Your task to perform on an android device: create a new album in the google photos Image 0: 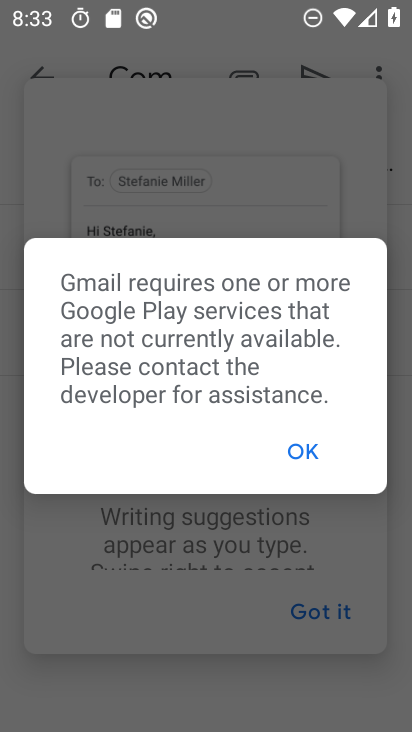
Step 0: press home button
Your task to perform on an android device: create a new album in the google photos Image 1: 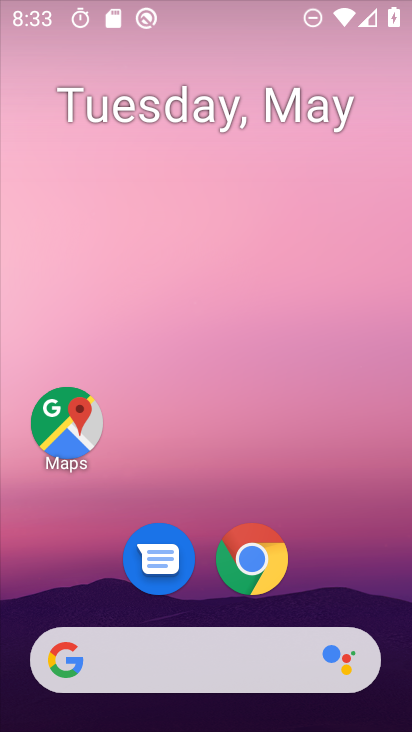
Step 1: drag from (377, 649) to (238, 103)
Your task to perform on an android device: create a new album in the google photos Image 2: 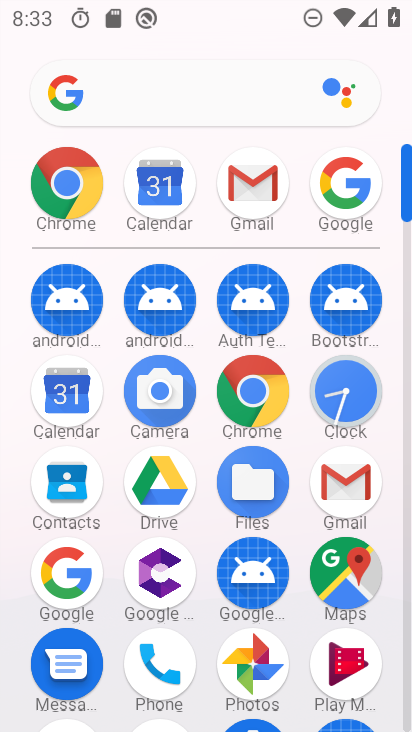
Step 2: click (253, 641)
Your task to perform on an android device: create a new album in the google photos Image 3: 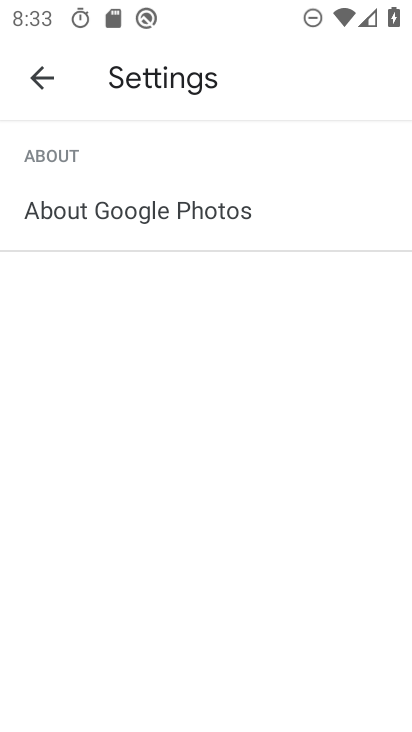
Step 3: press back button
Your task to perform on an android device: create a new album in the google photos Image 4: 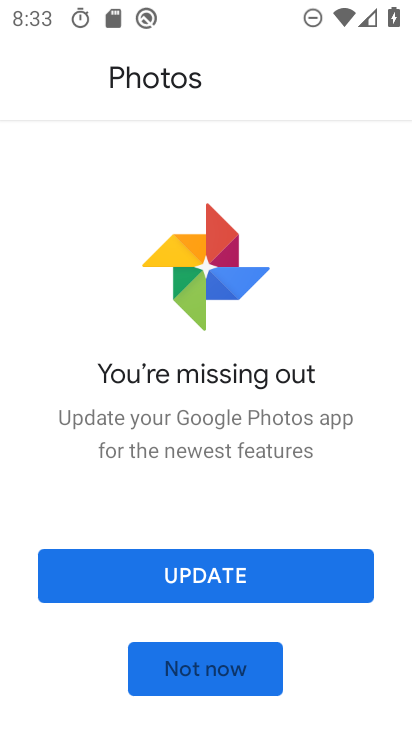
Step 4: click (233, 579)
Your task to perform on an android device: create a new album in the google photos Image 5: 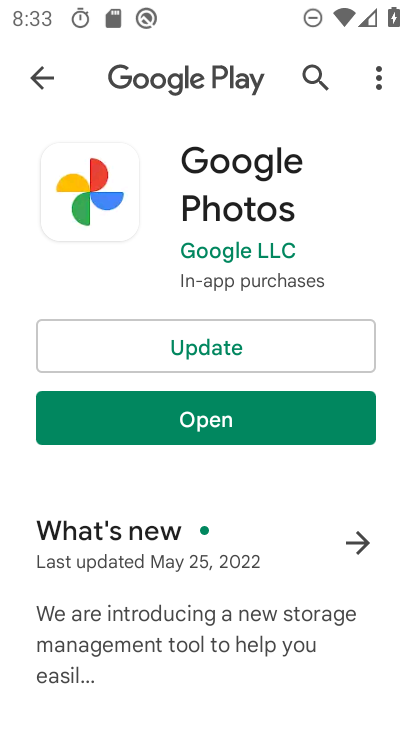
Step 5: click (233, 352)
Your task to perform on an android device: create a new album in the google photos Image 6: 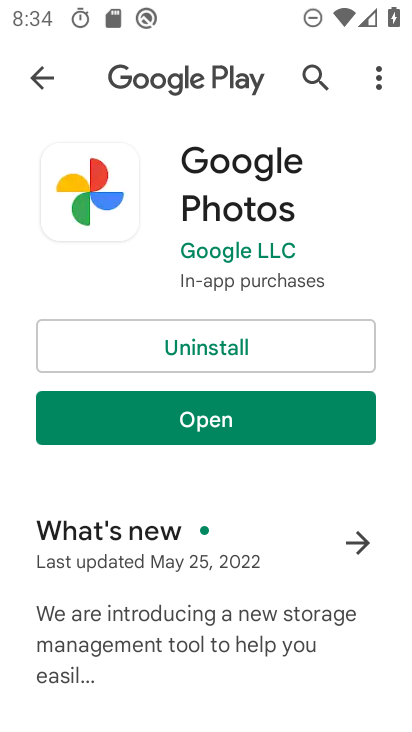
Step 6: click (252, 433)
Your task to perform on an android device: create a new album in the google photos Image 7: 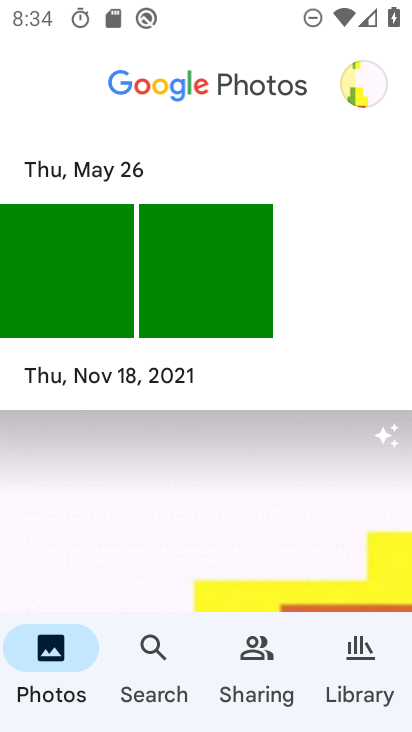
Step 7: click (81, 274)
Your task to perform on an android device: create a new album in the google photos Image 8: 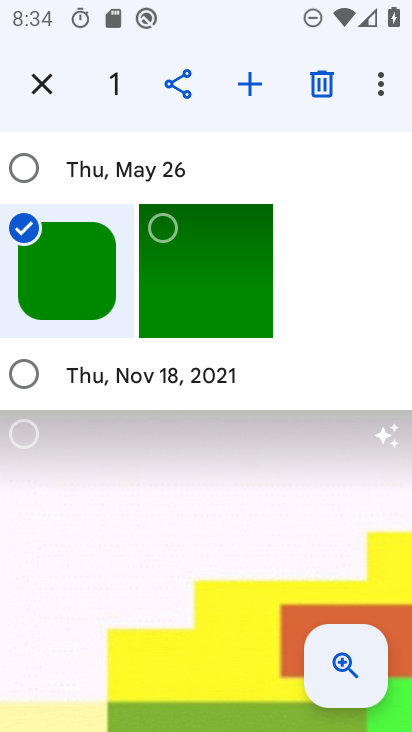
Step 8: click (214, 284)
Your task to perform on an android device: create a new album in the google photos Image 9: 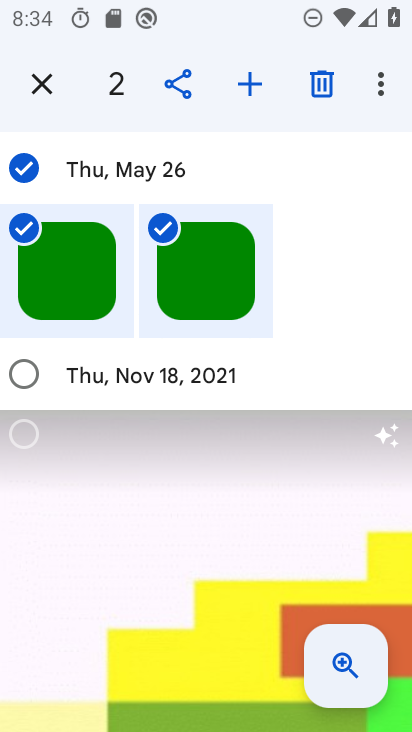
Step 9: click (254, 77)
Your task to perform on an android device: create a new album in the google photos Image 10: 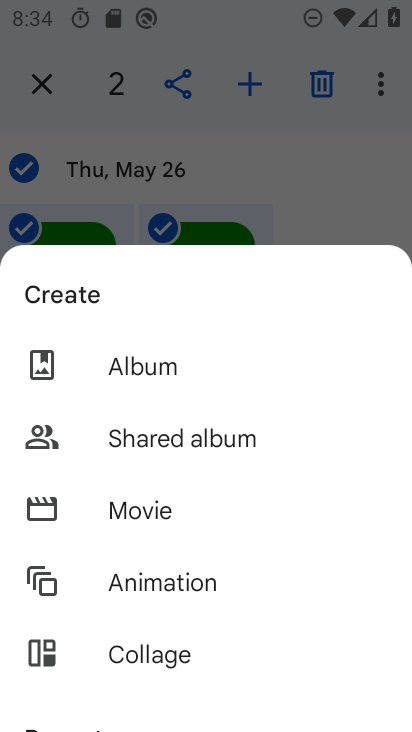
Step 10: click (162, 369)
Your task to perform on an android device: create a new album in the google photos Image 11: 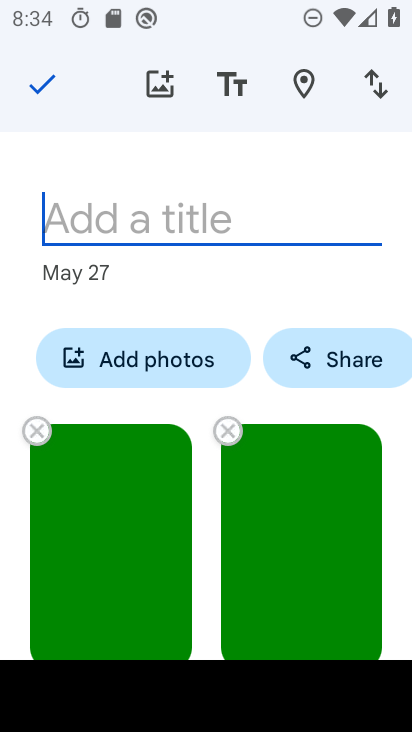
Step 11: type "Tssssss"
Your task to perform on an android device: create a new album in the google photos Image 12: 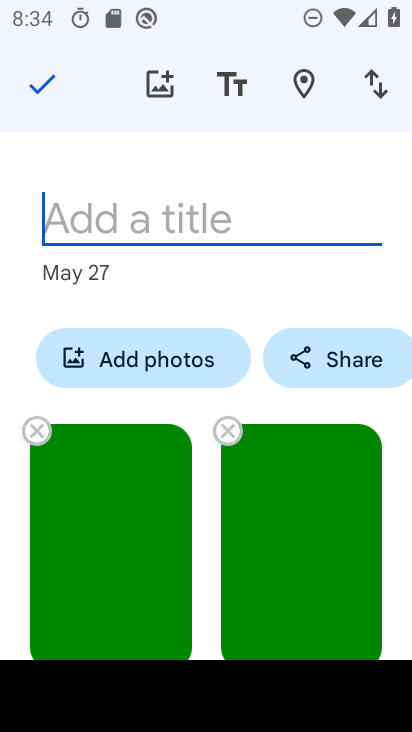
Step 12: click (40, 84)
Your task to perform on an android device: create a new album in the google photos Image 13: 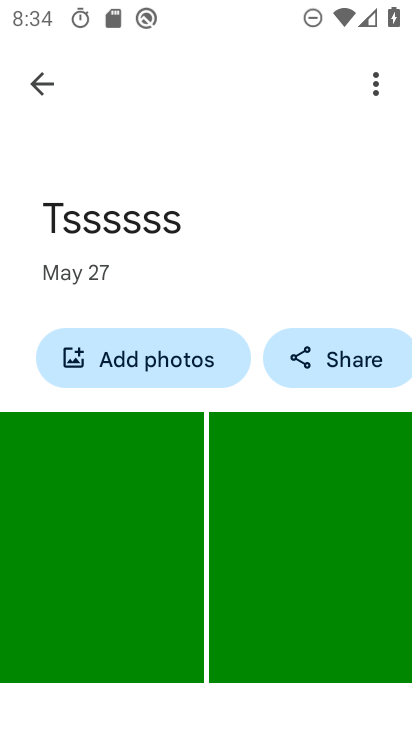
Step 13: task complete